Your task to perform on an android device: Show the shopping cart on ebay. Search for alienware aurora on ebay, select the first entry, add it to the cart, then select checkout. Image 0: 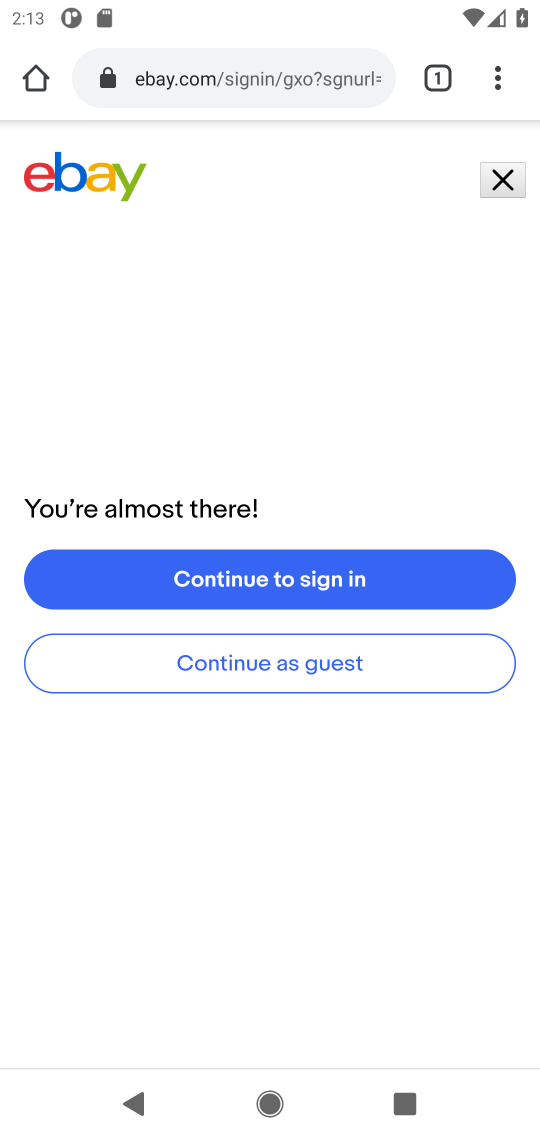
Step 0: press home button
Your task to perform on an android device: Show the shopping cart on ebay. Search for alienware aurora on ebay, select the first entry, add it to the cart, then select checkout. Image 1: 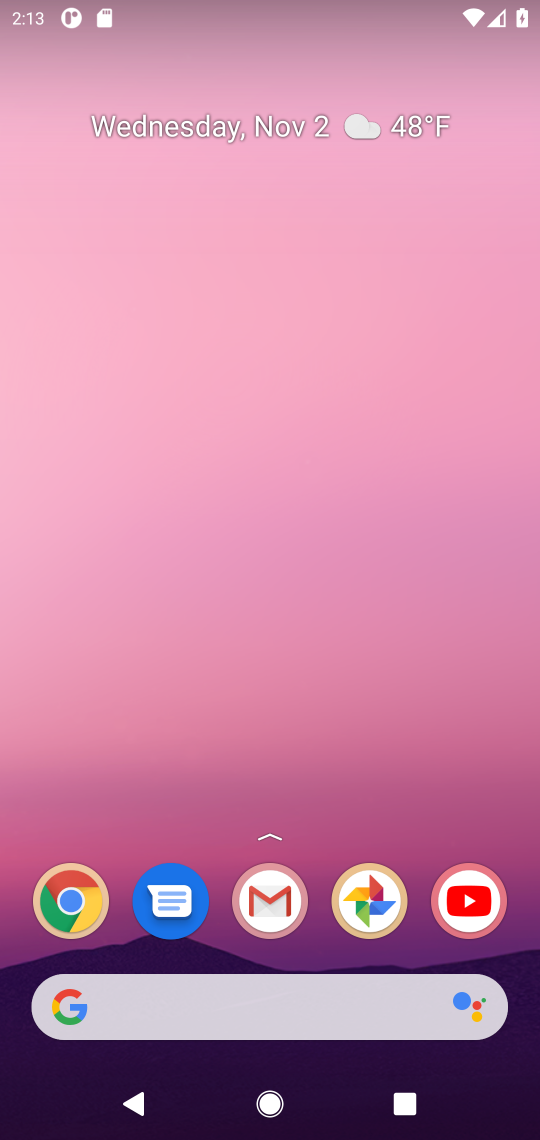
Step 1: drag from (323, 961) to (414, 188)
Your task to perform on an android device: Show the shopping cart on ebay. Search for alienware aurora on ebay, select the first entry, add it to the cart, then select checkout. Image 2: 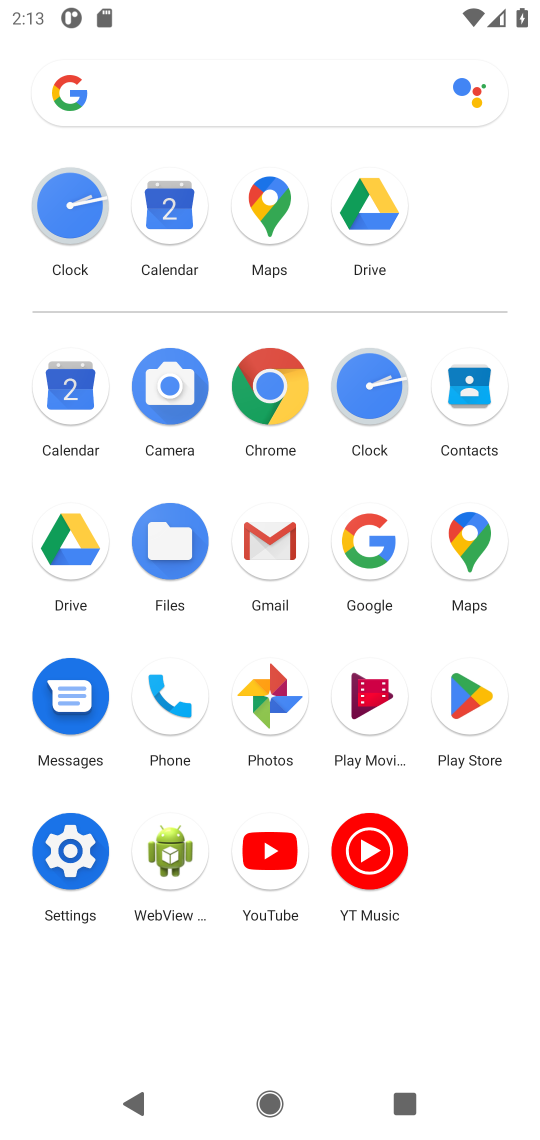
Step 2: click (277, 378)
Your task to perform on an android device: Show the shopping cart on ebay. Search for alienware aurora on ebay, select the first entry, add it to the cart, then select checkout. Image 3: 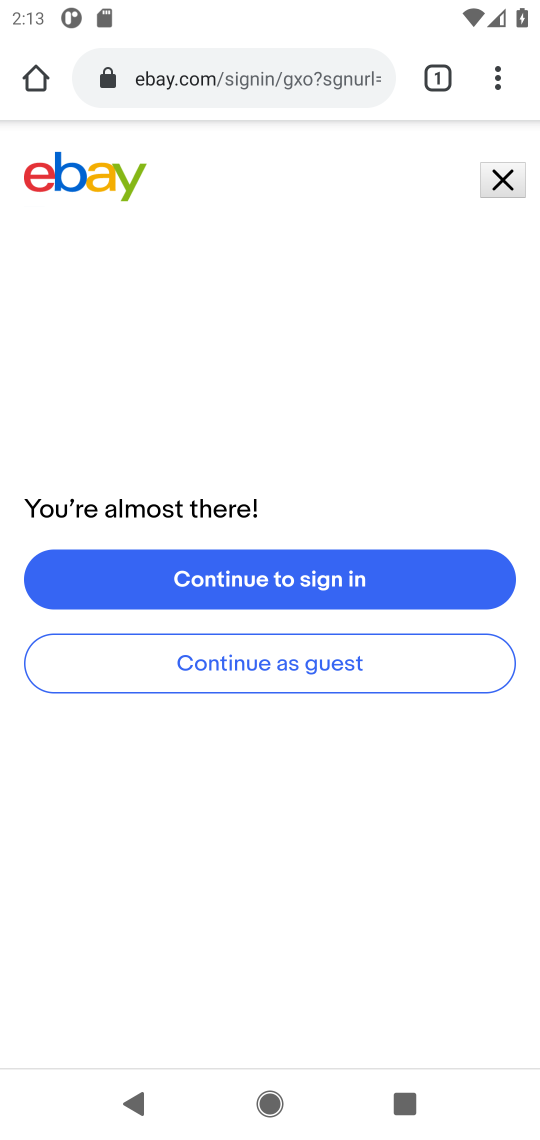
Step 3: click (279, 63)
Your task to perform on an android device: Show the shopping cart on ebay. Search for alienware aurora on ebay, select the first entry, add it to the cart, then select checkout. Image 4: 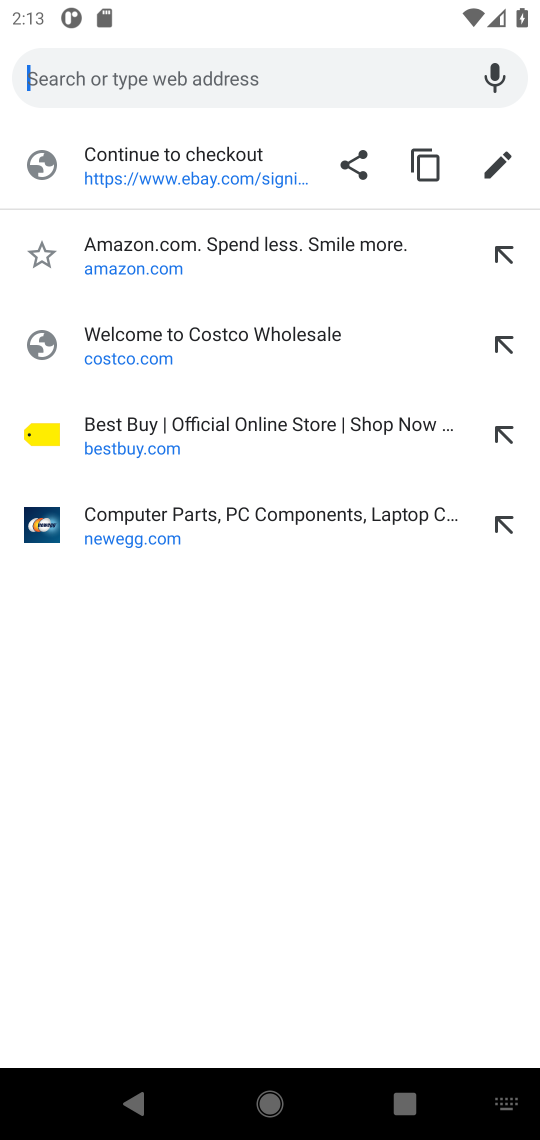
Step 4: type "ebay.com"
Your task to perform on an android device: Show the shopping cart on ebay. Search for alienware aurora on ebay, select the first entry, add it to the cart, then select checkout. Image 5: 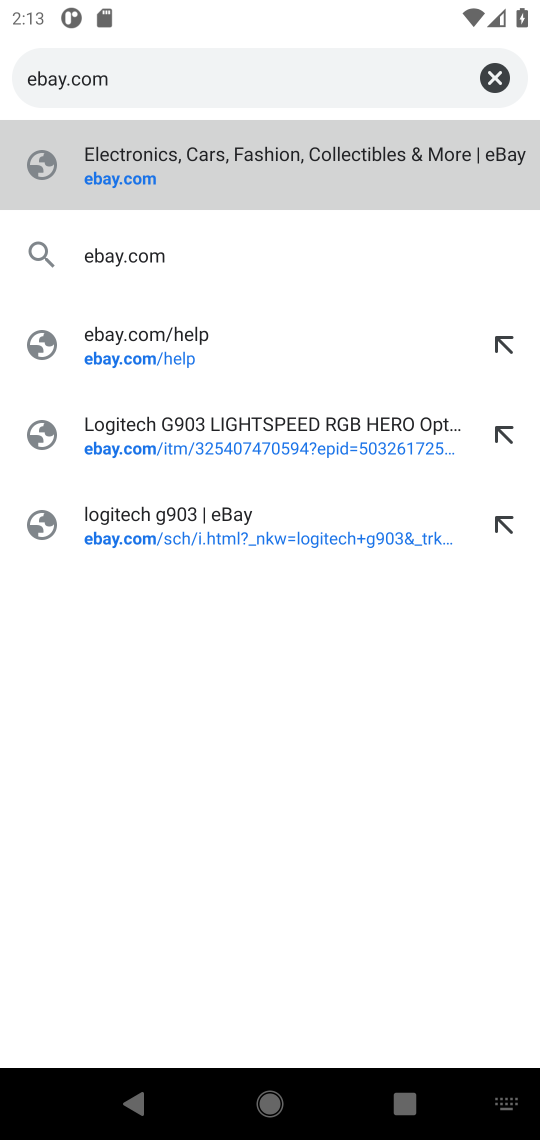
Step 5: press enter
Your task to perform on an android device: Show the shopping cart on ebay. Search for alienware aurora on ebay, select the first entry, add it to the cart, then select checkout. Image 6: 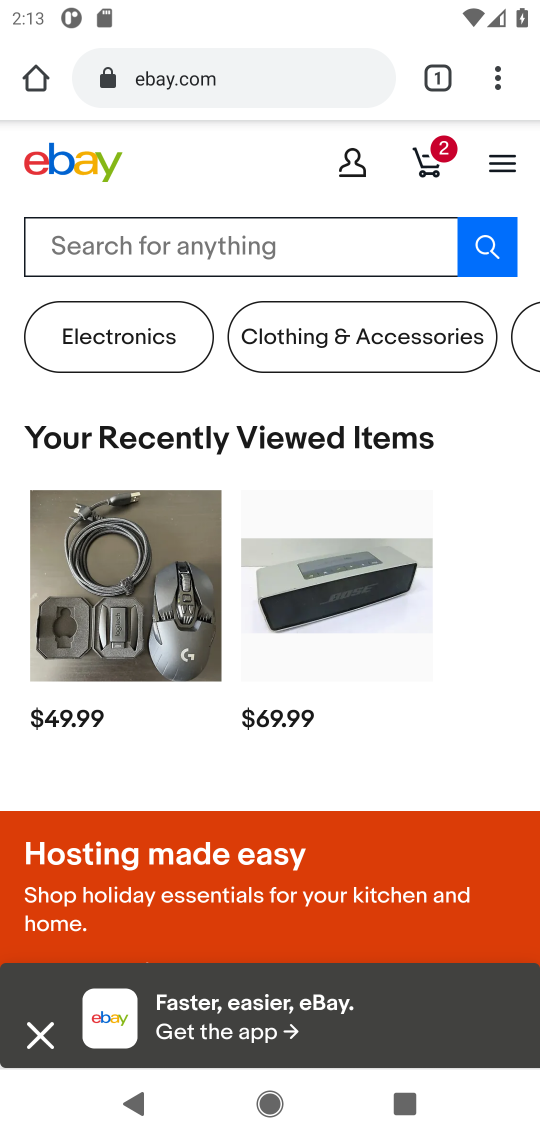
Step 6: click (435, 157)
Your task to perform on an android device: Show the shopping cart on ebay. Search for alienware aurora on ebay, select the first entry, add it to the cart, then select checkout. Image 7: 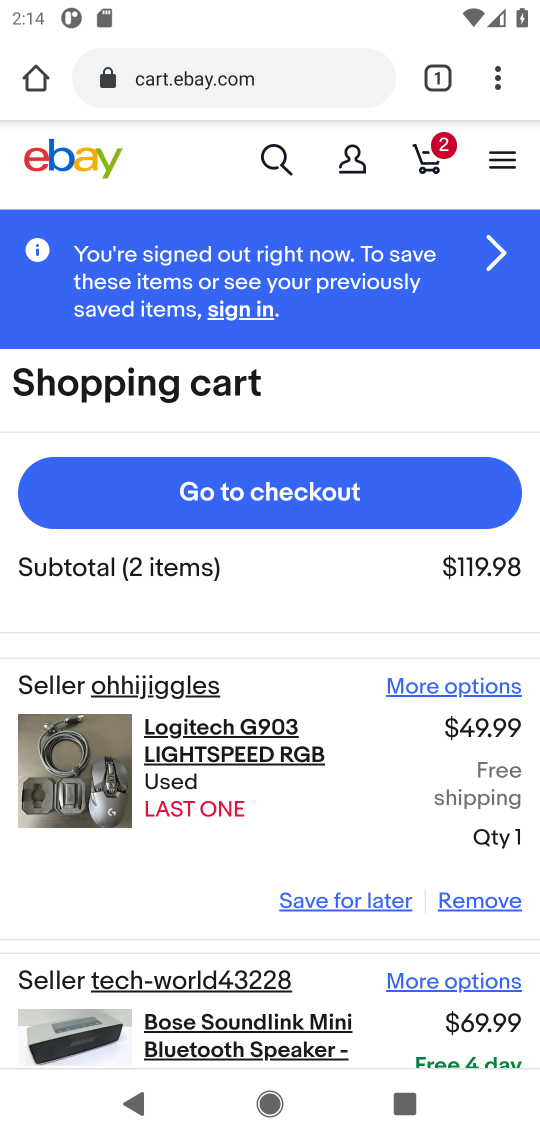
Step 7: click (279, 168)
Your task to perform on an android device: Show the shopping cart on ebay. Search for alienware aurora on ebay, select the first entry, add it to the cart, then select checkout. Image 8: 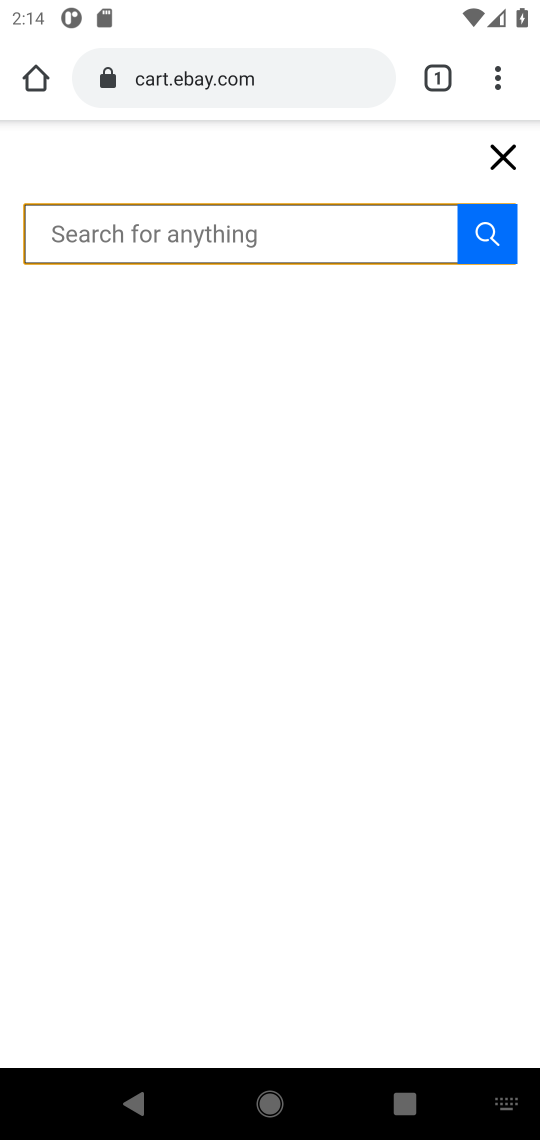
Step 8: type "alienware aurora"
Your task to perform on an android device: Show the shopping cart on ebay. Search for alienware aurora on ebay, select the first entry, add it to the cart, then select checkout. Image 9: 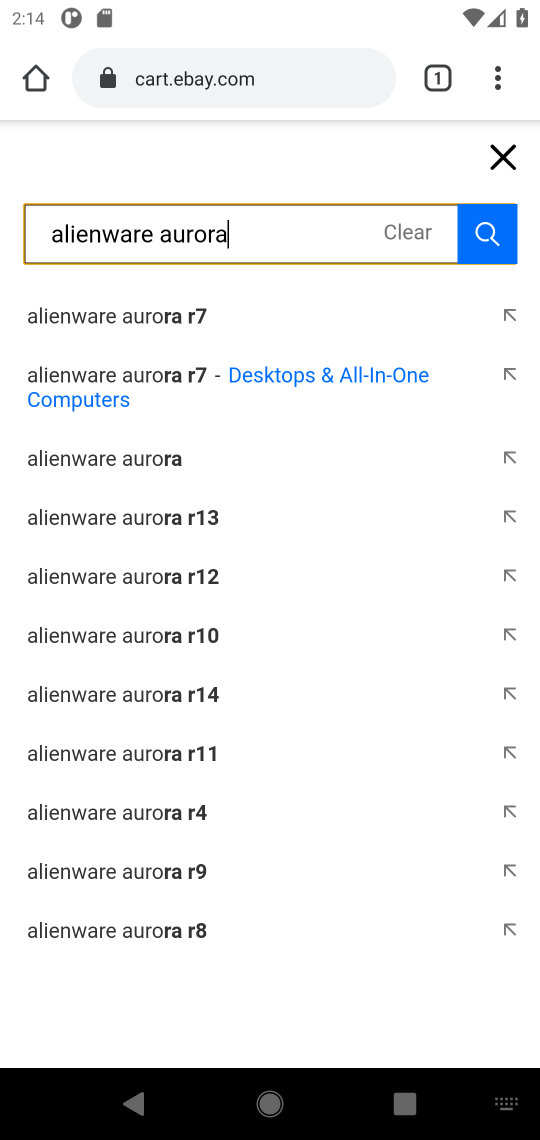
Step 9: press enter
Your task to perform on an android device: Show the shopping cart on ebay. Search for alienware aurora on ebay, select the first entry, add it to the cart, then select checkout. Image 10: 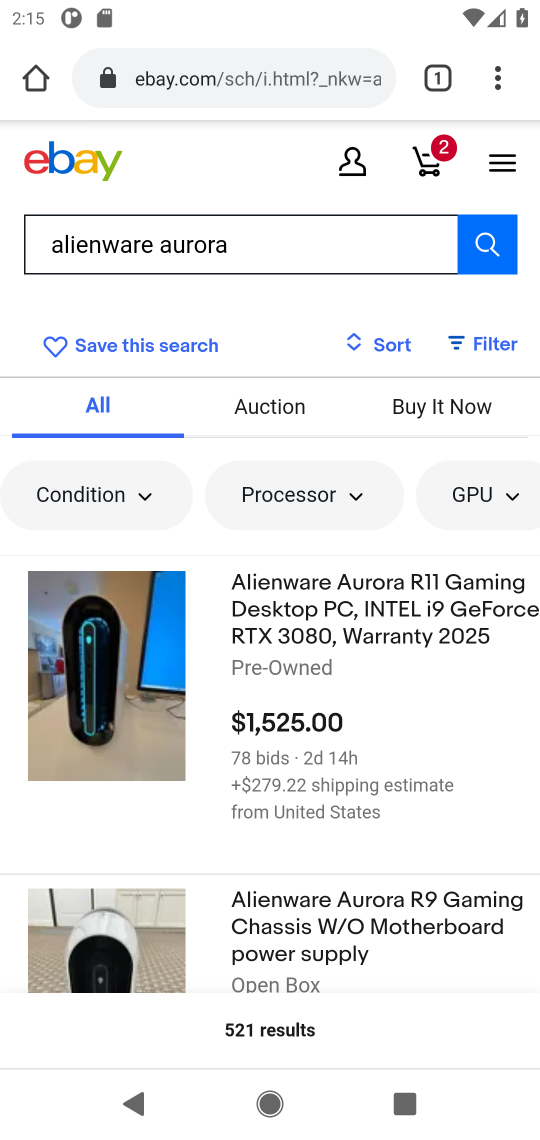
Step 10: click (308, 593)
Your task to perform on an android device: Show the shopping cart on ebay. Search for alienware aurora on ebay, select the first entry, add it to the cart, then select checkout. Image 11: 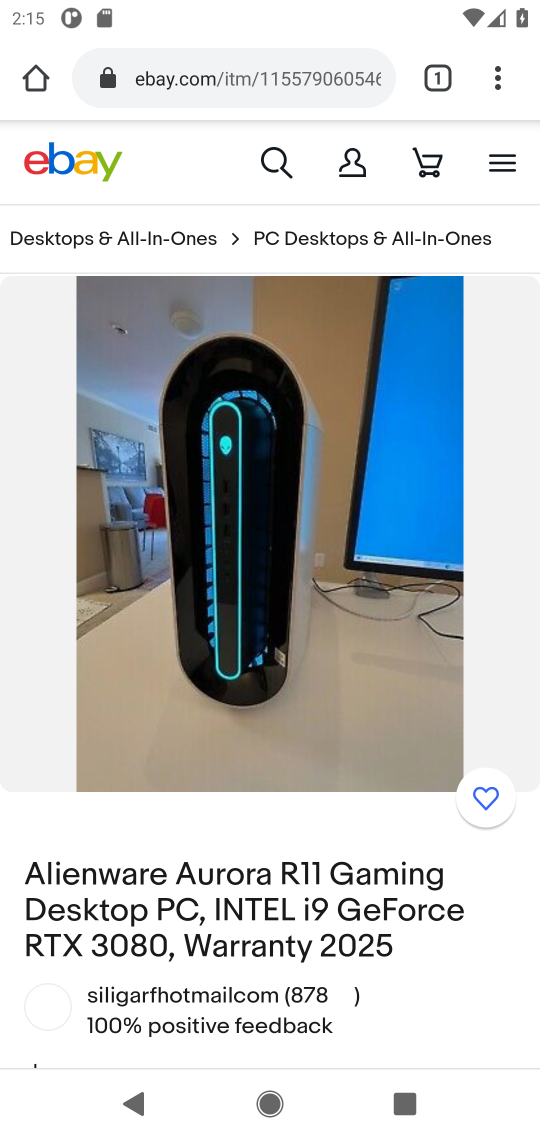
Step 11: drag from (340, 798) to (375, 113)
Your task to perform on an android device: Show the shopping cart on ebay. Search for alienware aurora on ebay, select the first entry, add it to the cart, then select checkout. Image 12: 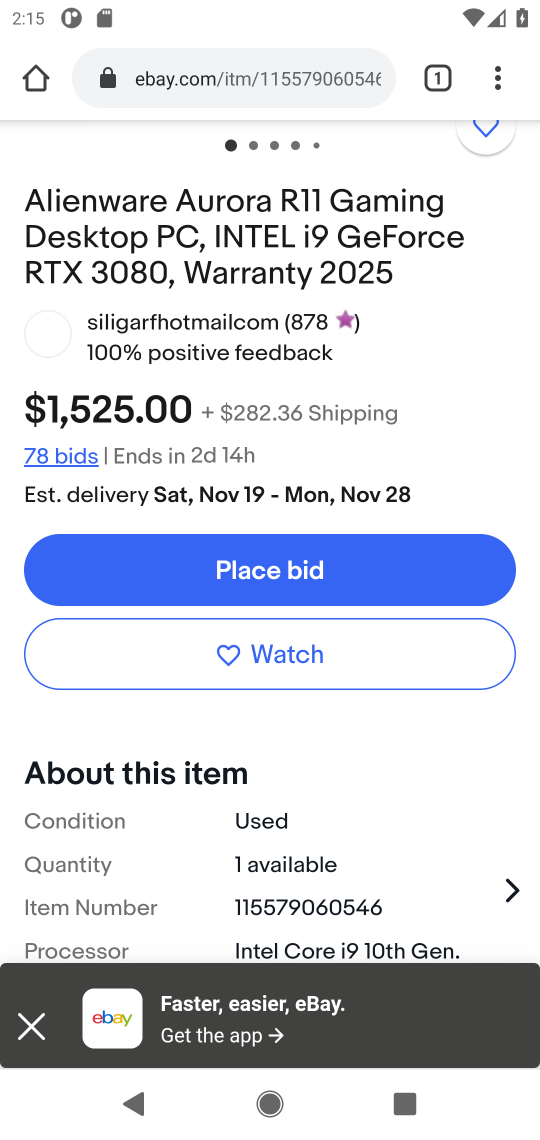
Step 12: click (379, 557)
Your task to perform on an android device: Show the shopping cart on ebay. Search for alienware aurora on ebay, select the first entry, add it to the cart, then select checkout. Image 13: 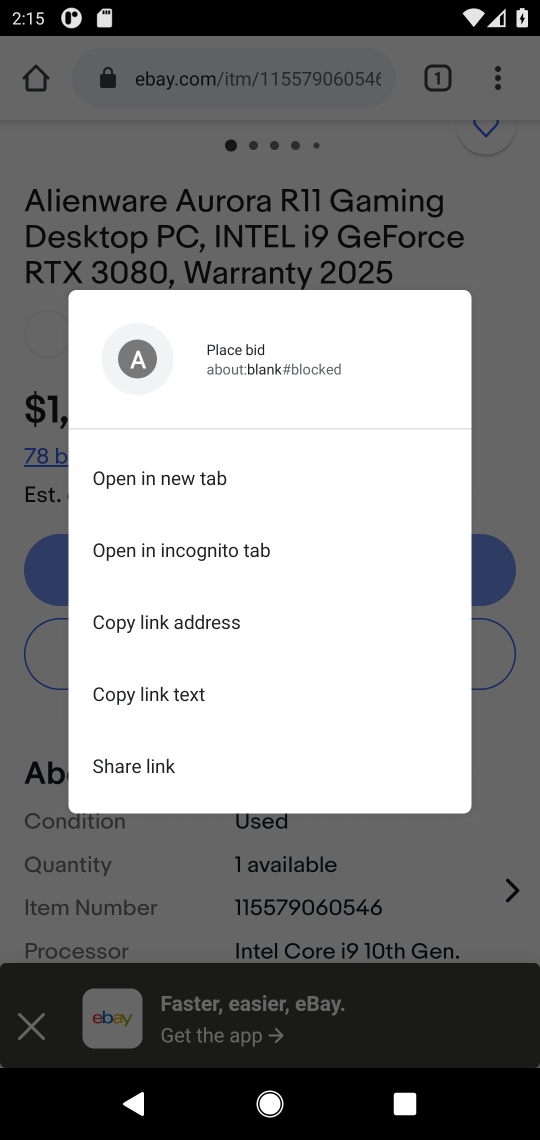
Step 13: click (482, 553)
Your task to perform on an android device: Show the shopping cart on ebay. Search for alienware aurora on ebay, select the first entry, add it to the cart, then select checkout. Image 14: 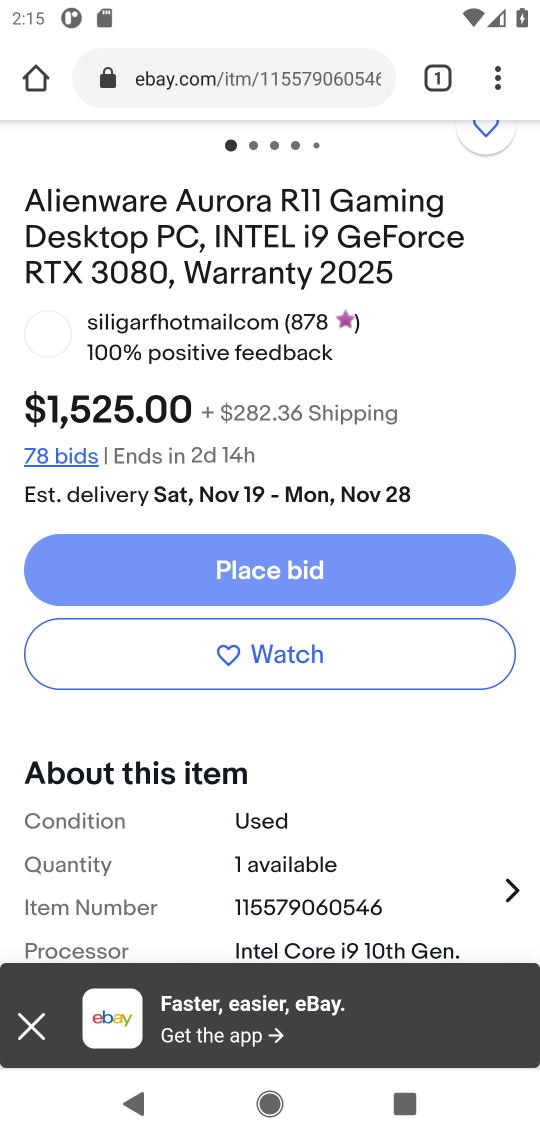
Step 14: click (482, 553)
Your task to perform on an android device: Show the shopping cart on ebay. Search for alienware aurora on ebay, select the first entry, add it to the cart, then select checkout. Image 15: 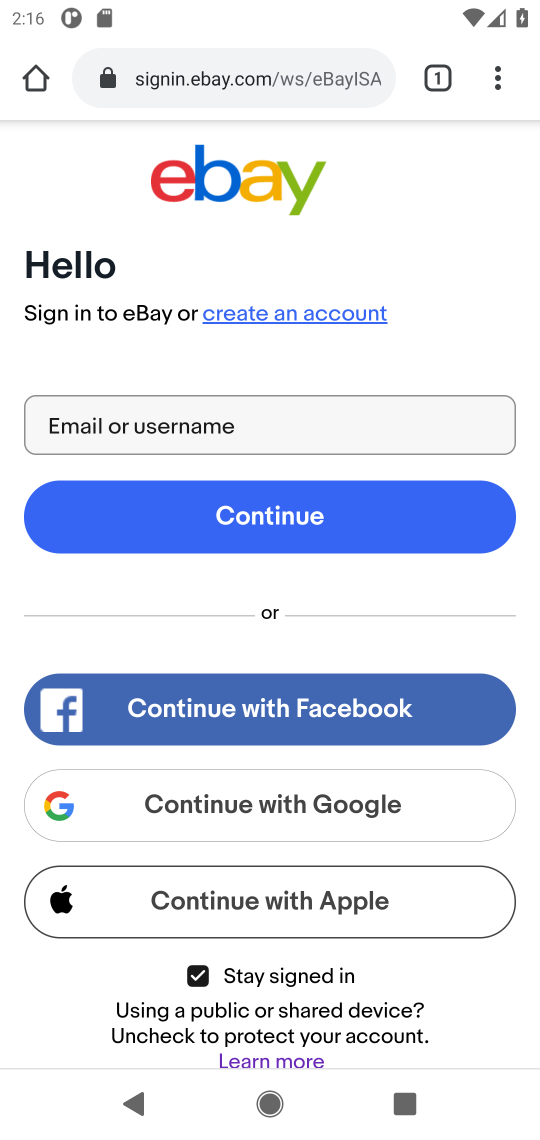
Step 15: task complete